Your task to perform on an android device: What is the news today? Image 0: 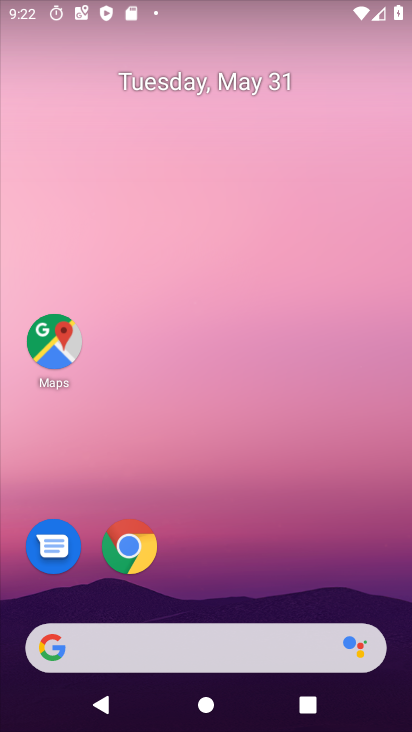
Step 0: click (214, 640)
Your task to perform on an android device: What is the news today? Image 1: 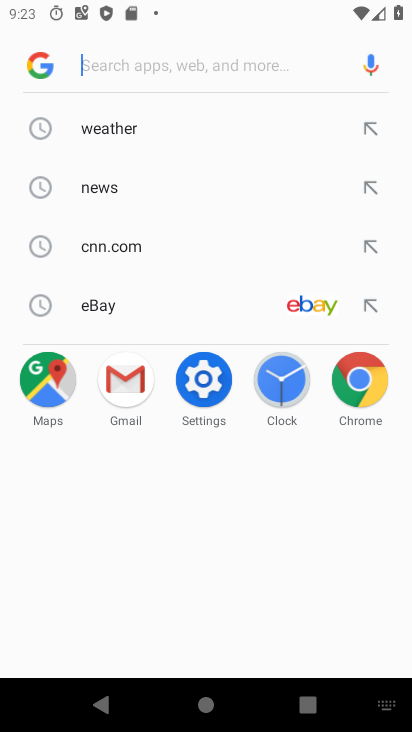
Step 1: type "what is the news today?"
Your task to perform on an android device: What is the news today? Image 2: 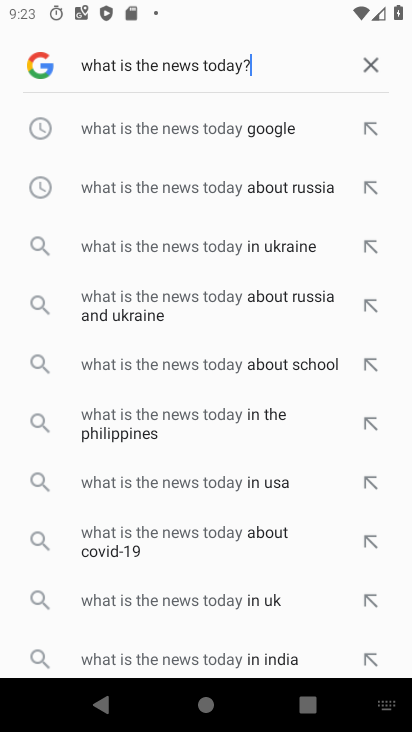
Step 2: click (168, 133)
Your task to perform on an android device: What is the news today? Image 3: 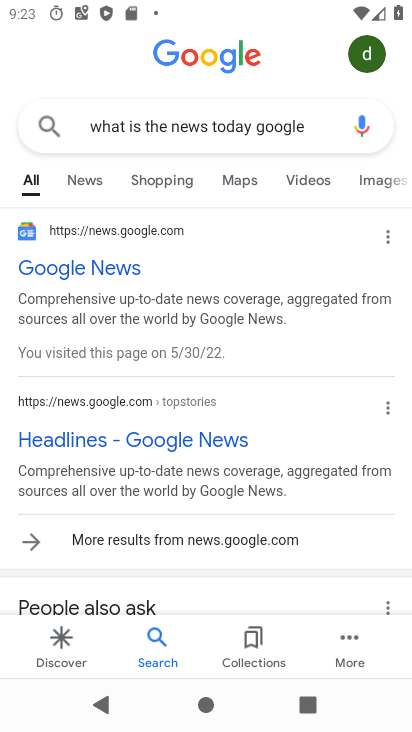
Step 3: click (87, 180)
Your task to perform on an android device: What is the news today? Image 4: 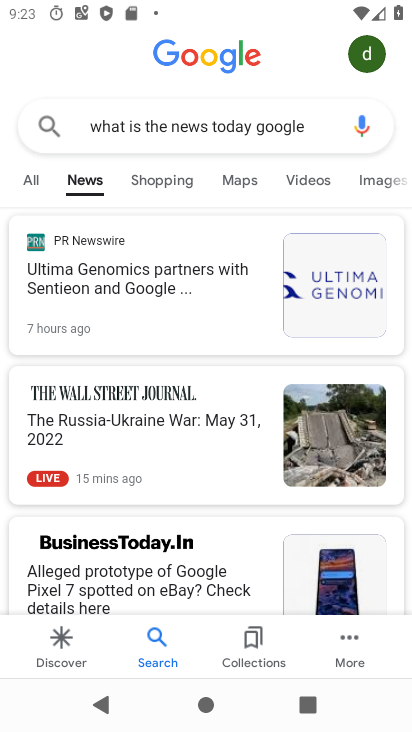
Step 4: task complete